Your task to perform on an android device: remove spam from my inbox in the gmail app Image 0: 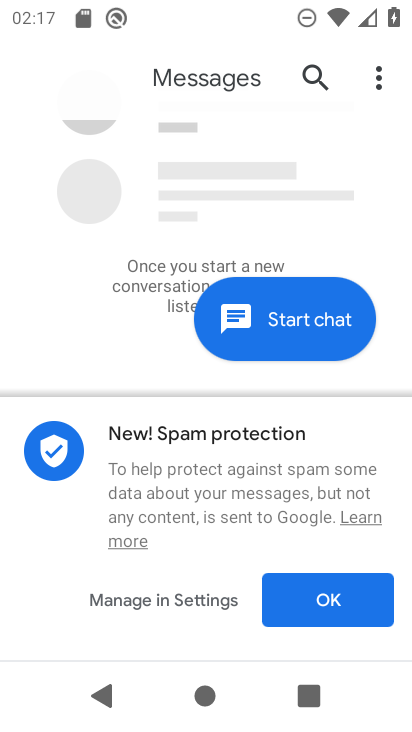
Step 0: press home button
Your task to perform on an android device: remove spam from my inbox in the gmail app Image 1: 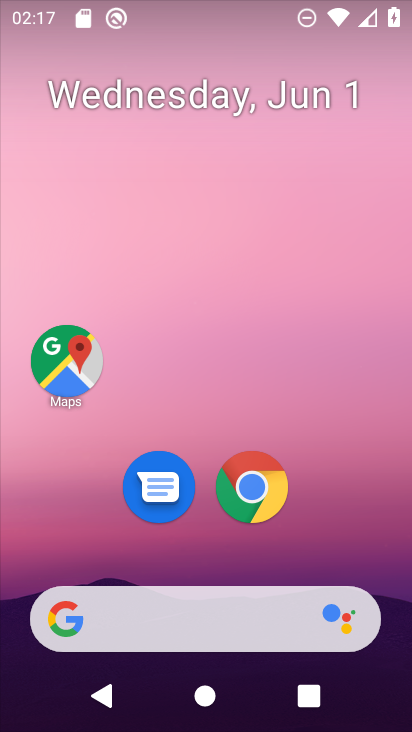
Step 1: drag from (183, 562) to (208, 169)
Your task to perform on an android device: remove spam from my inbox in the gmail app Image 2: 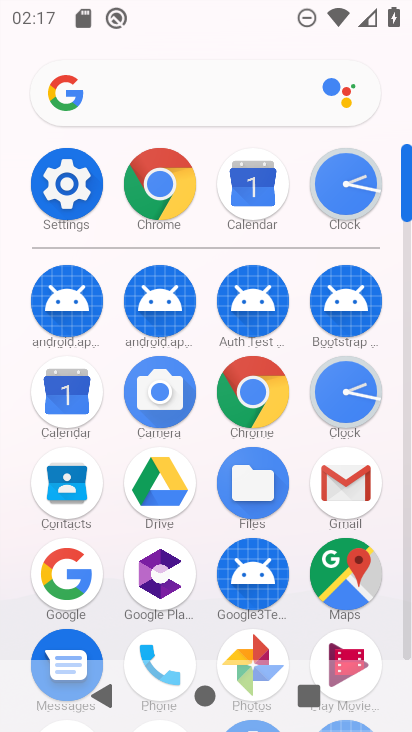
Step 2: click (340, 496)
Your task to perform on an android device: remove spam from my inbox in the gmail app Image 3: 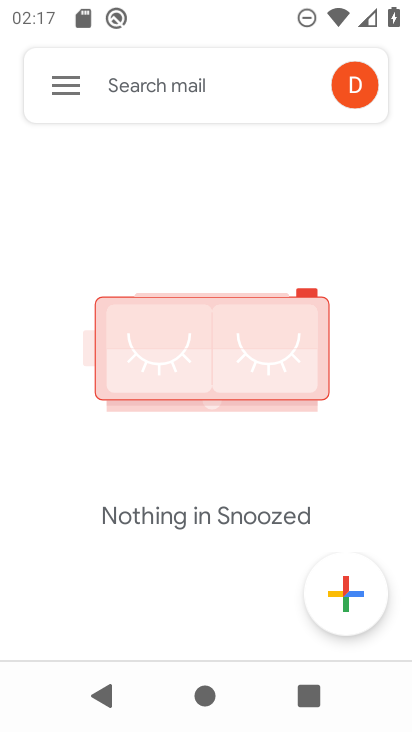
Step 3: click (50, 81)
Your task to perform on an android device: remove spam from my inbox in the gmail app Image 4: 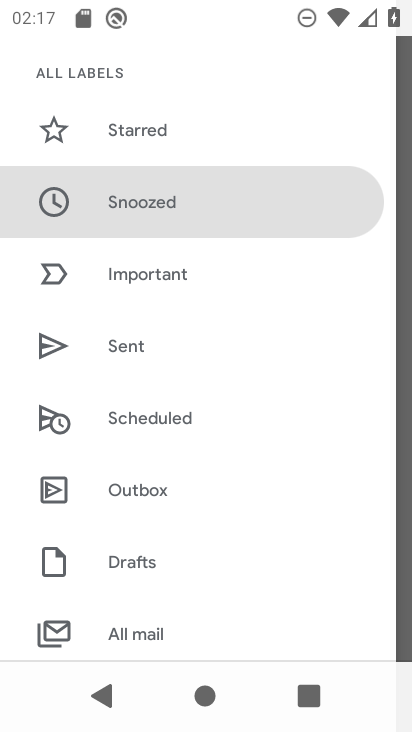
Step 4: drag from (140, 558) to (158, 251)
Your task to perform on an android device: remove spam from my inbox in the gmail app Image 5: 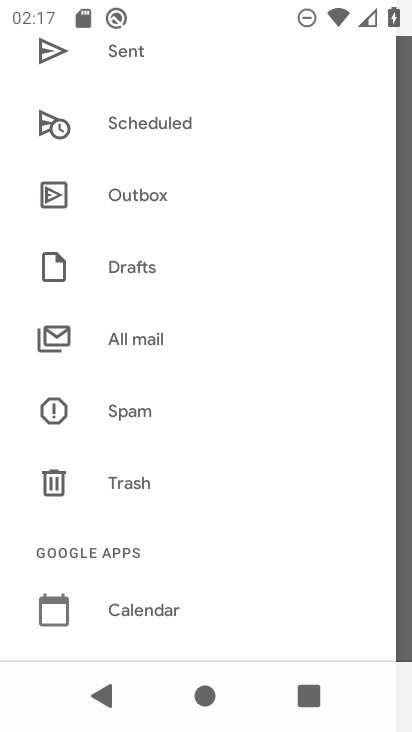
Step 5: click (120, 403)
Your task to perform on an android device: remove spam from my inbox in the gmail app Image 6: 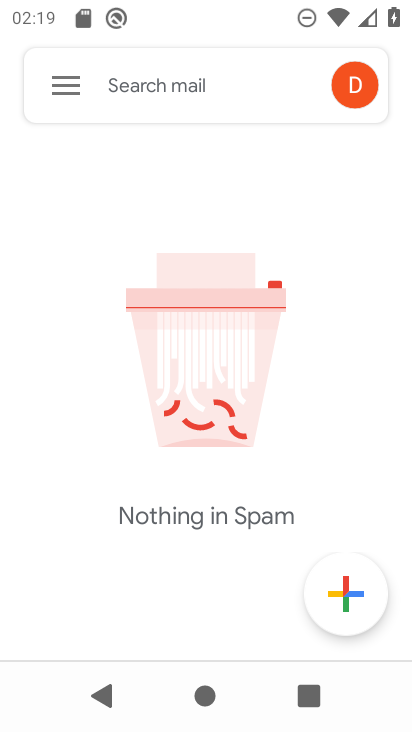
Step 6: task complete